Your task to perform on an android device: Search for sushi restaurants on Maps Image 0: 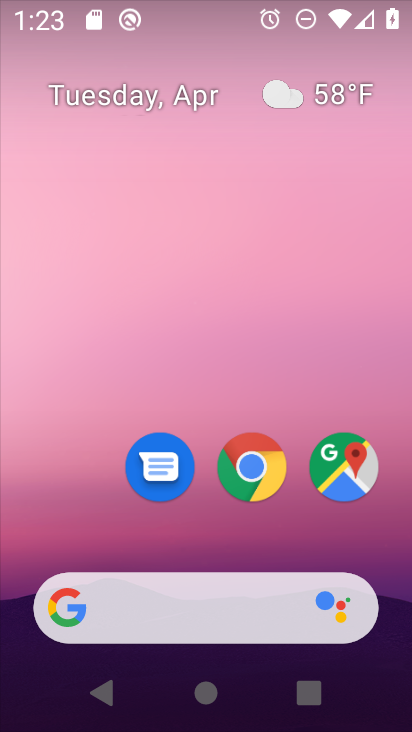
Step 0: click (353, 451)
Your task to perform on an android device: Search for sushi restaurants on Maps Image 1: 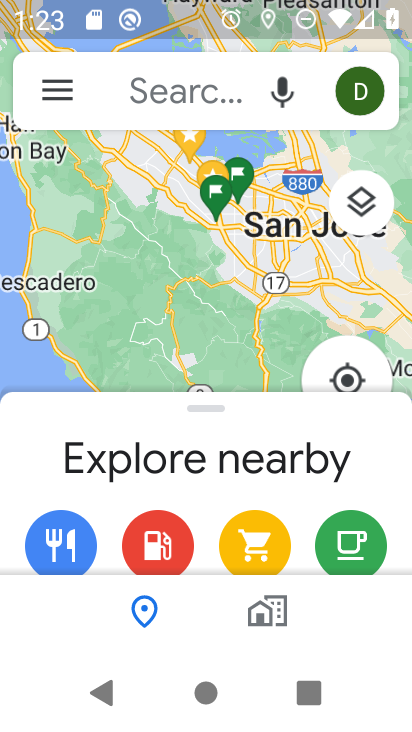
Step 1: click (211, 76)
Your task to perform on an android device: Search for sushi restaurants on Maps Image 2: 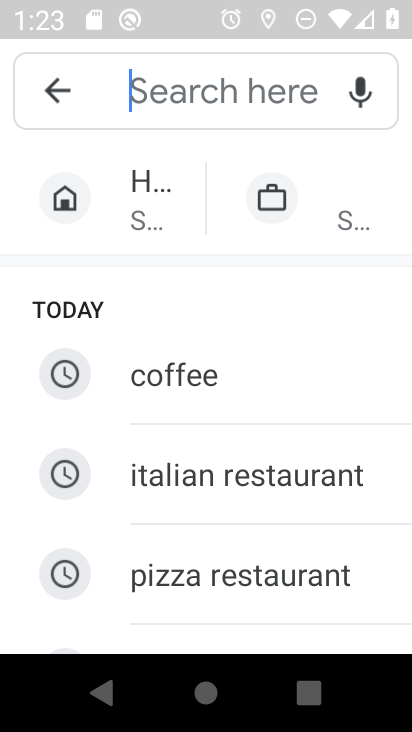
Step 2: type "sushi restaurants"
Your task to perform on an android device: Search for sushi restaurants on Maps Image 3: 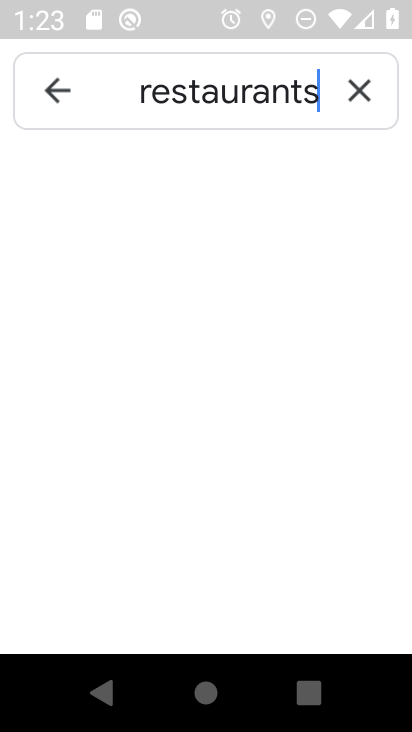
Step 3: type ""
Your task to perform on an android device: Search for sushi restaurants on Maps Image 4: 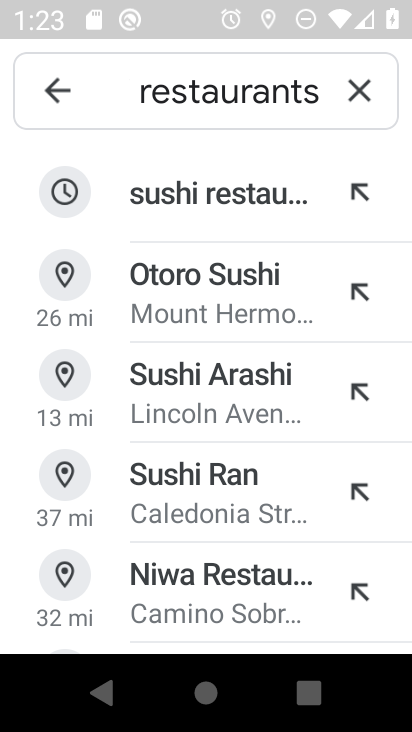
Step 4: click (80, 195)
Your task to perform on an android device: Search for sushi restaurants on Maps Image 5: 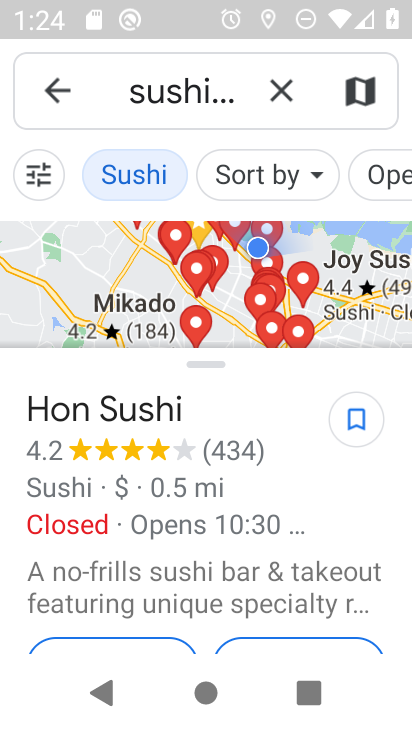
Step 5: task complete